Your task to perform on an android device: change the clock style Image 0: 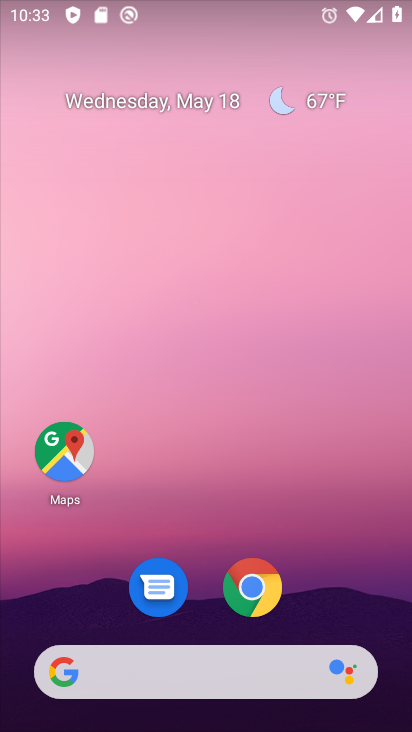
Step 0: drag from (347, 589) to (336, 294)
Your task to perform on an android device: change the clock style Image 1: 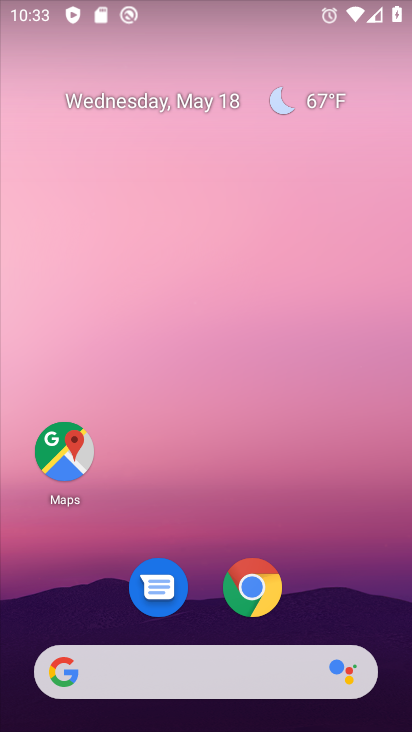
Step 1: drag from (351, 530) to (411, 140)
Your task to perform on an android device: change the clock style Image 2: 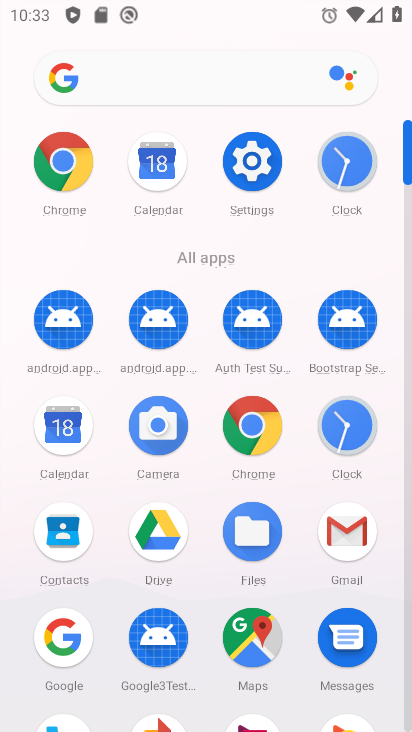
Step 2: click (337, 174)
Your task to perform on an android device: change the clock style Image 3: 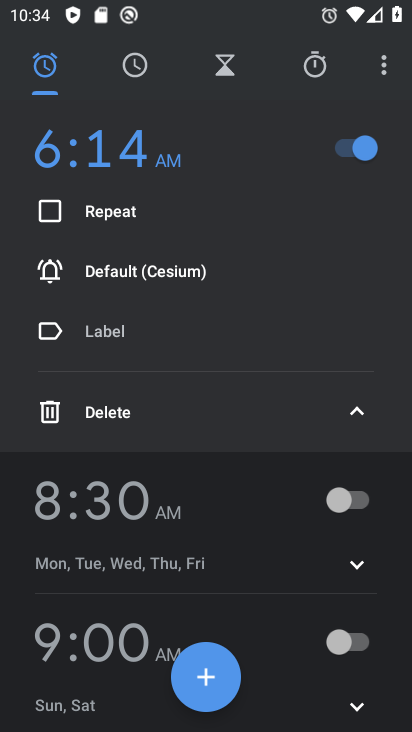
Step 3: click (375, 59)
Your task to perform on an android device: change the clock style Image 4: 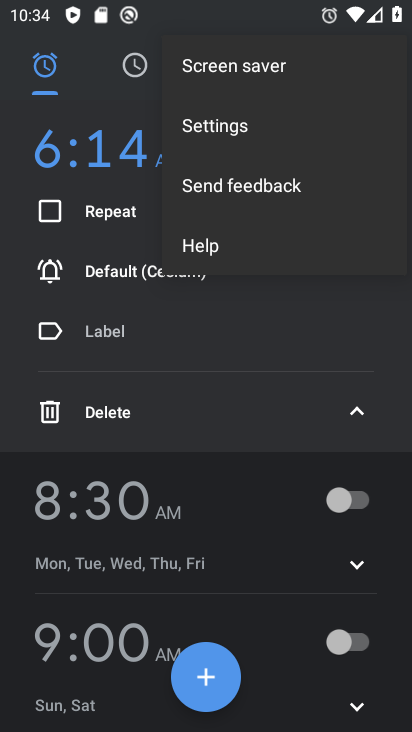
Step 4: click (339, 122)
Your task to perform on an android device: change the clock style Image 5: 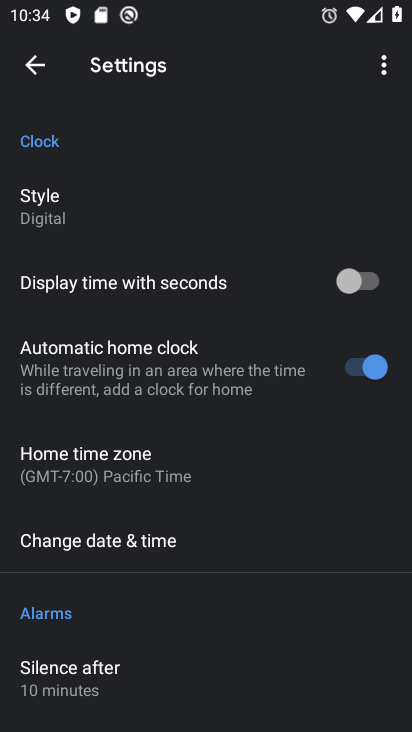
Step 5: click (134, 209)
Your task to perform on an android device: change the clock style Image 6: 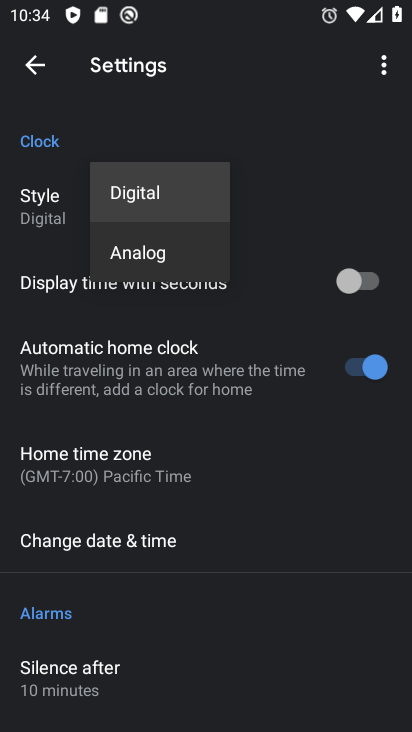
Step 6: click (125, 247)
Your task to perform on an android device: change the clock style Image 7: 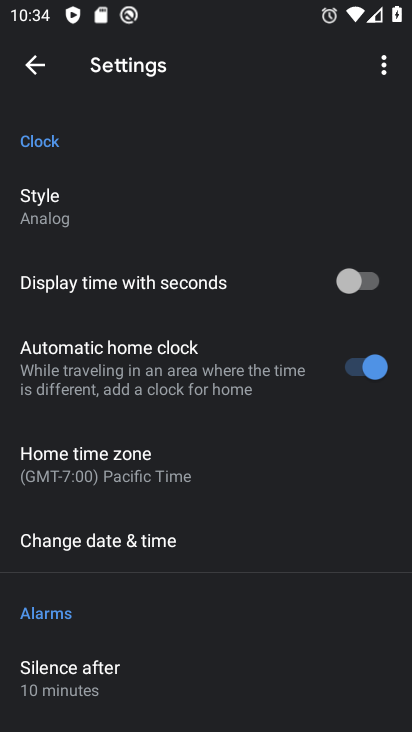
Step 7: task complete